Your task to perform on an android device: change the clock style Image 0: 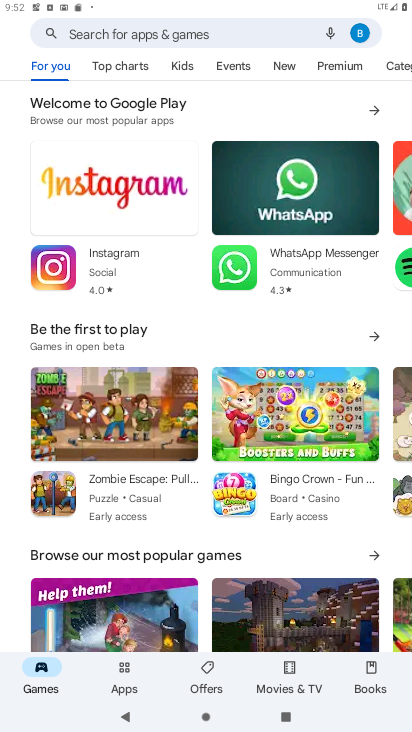
Step 0: press home button
Your task to perform on an android device: change the clock style Image 1: 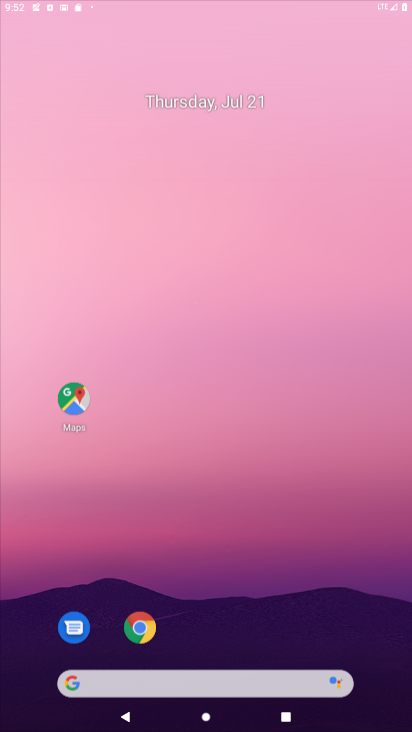
Step 1: press home button
Your task to perform on an android device: change the clock style Image 2: 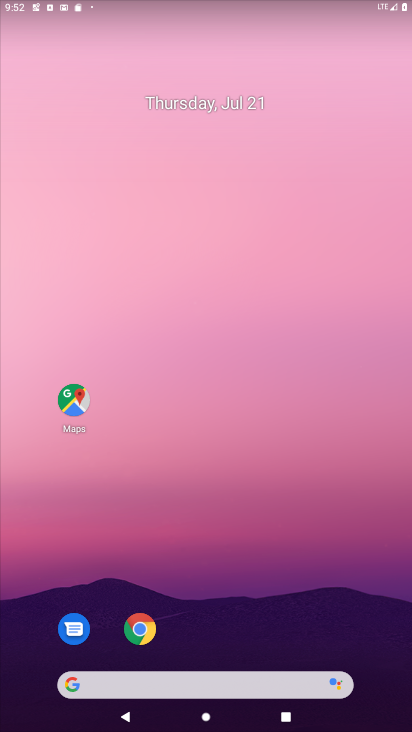
Step 2: drag from (281, 603) to (311, 202)
Your task to perform on an android device: change the clock style Image 3: 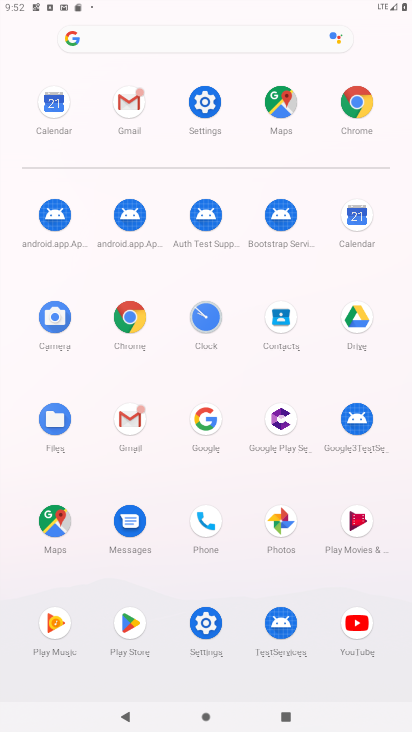
Step 3: click (201, 317)
Your task to perform on an android device: change the clock style Image 4: 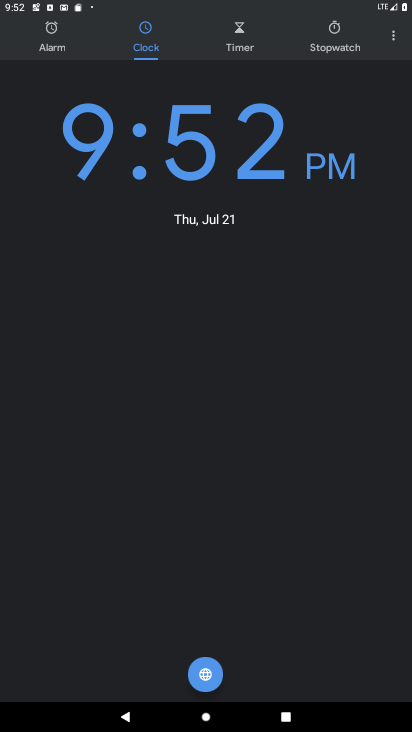
Step 4: click (395, 42)
Your task to perform on an android device: change the clock style Image 5: 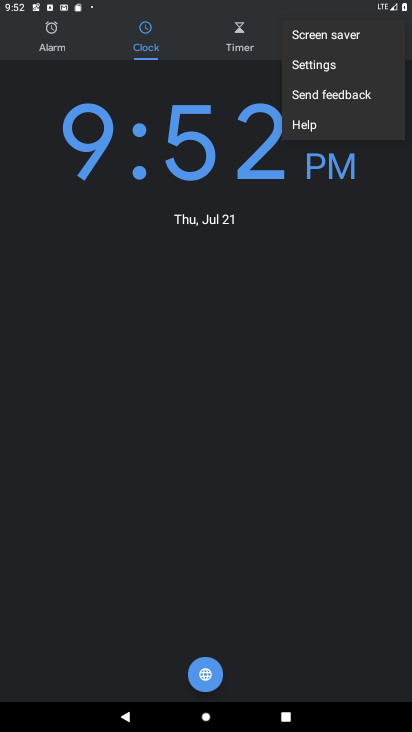
Step 5: click (328, 67)
Your task to perform on an android device: change the clock style Image 6: 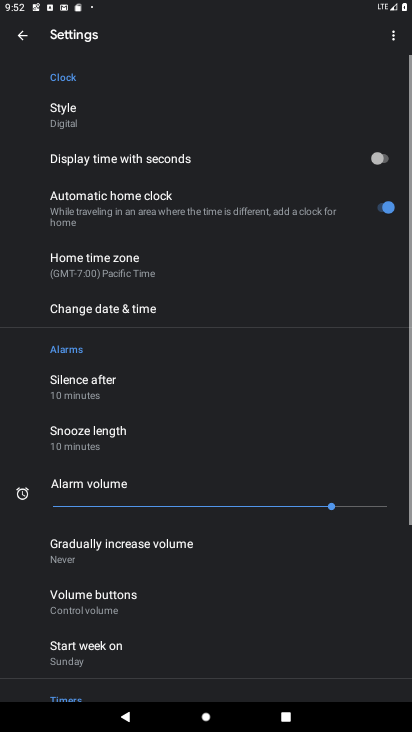
Step 6: click (182, 126)
Your task to perform on an android device: change the clock style Image 7: 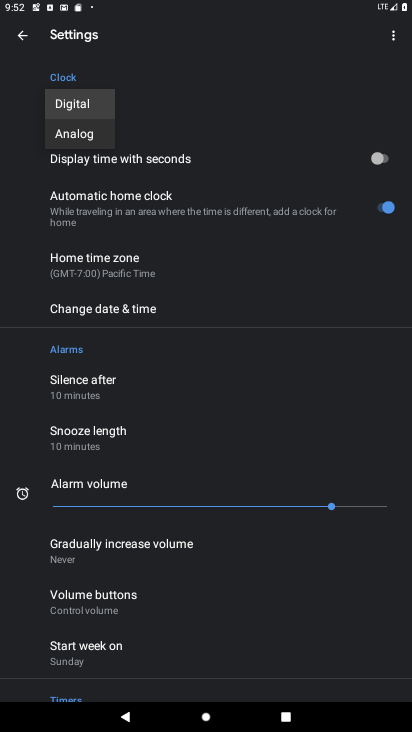
Step 7: click (104, 130)
Your task to perform on an android device: change the clock style Image 8: 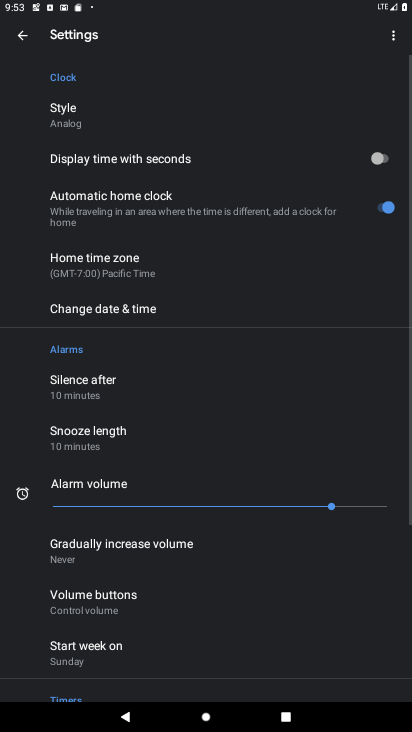
Step 8: task complete